Your task to perform on an android device: Open network settings Image 0: 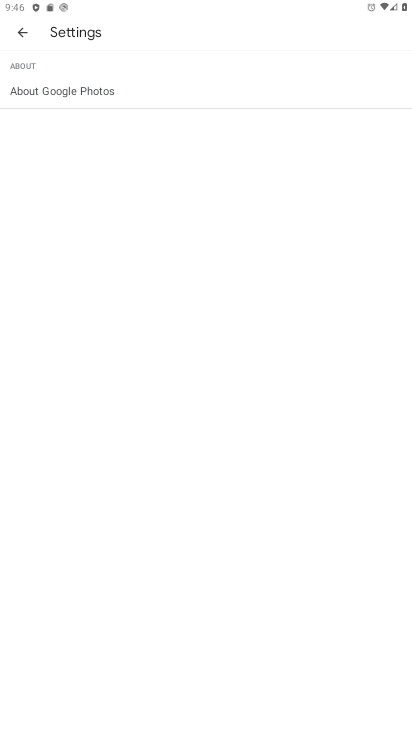
Step 0: press home button
Your task to perform on an android device: Open network settings Image 1: 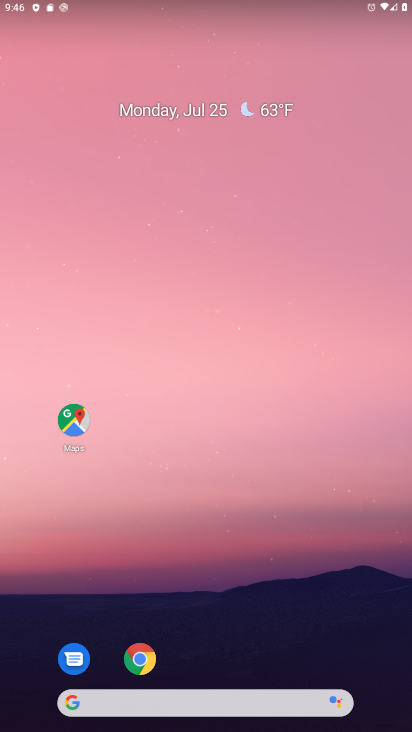
Step 1: drag from (209, 686) to (207, 183)
Your task to perform on an android device: Open network settings Image 2: 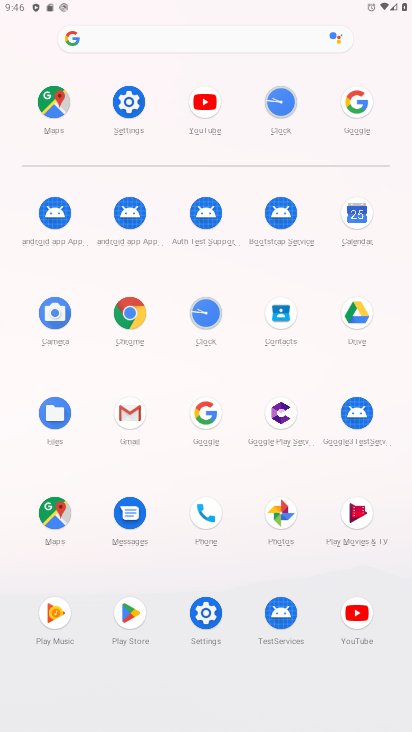
Step 2: click (124, 107)
Your task to perform on an android device: Open network settings Image 3: 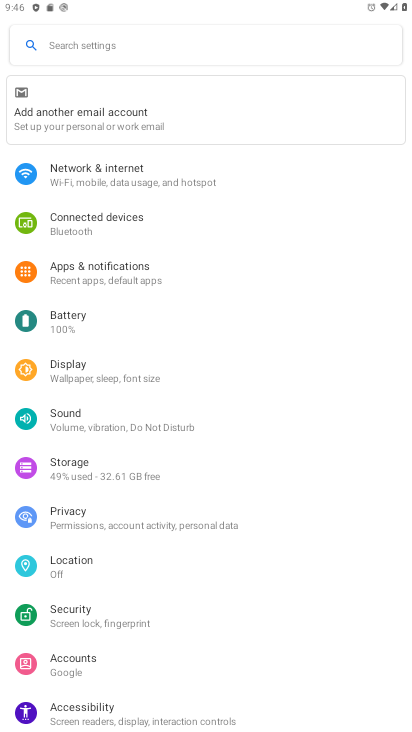
Step 3: click (113, 165)
Your task to perform on an android device: Open network settings Image 4: 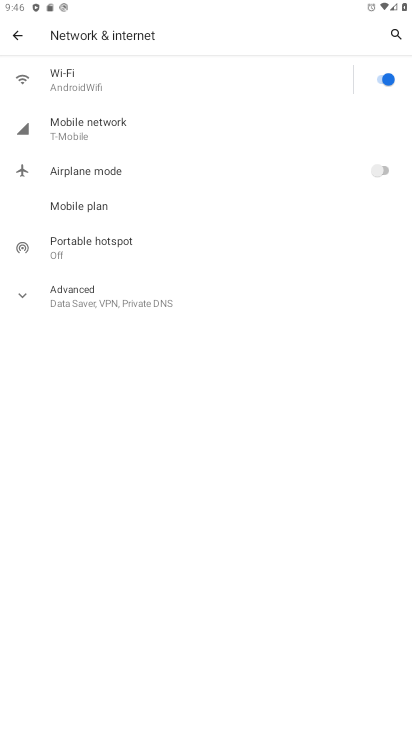
Step 4: click (60, 130)
Your task to perform on an android device: Open network settings Image 5: 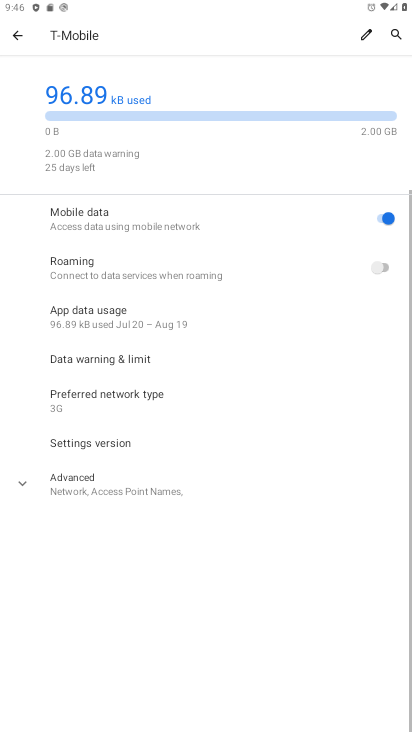
Step 5: task complete